Your task to perform on an android device: Show me popular videos on Youtube Image 0: 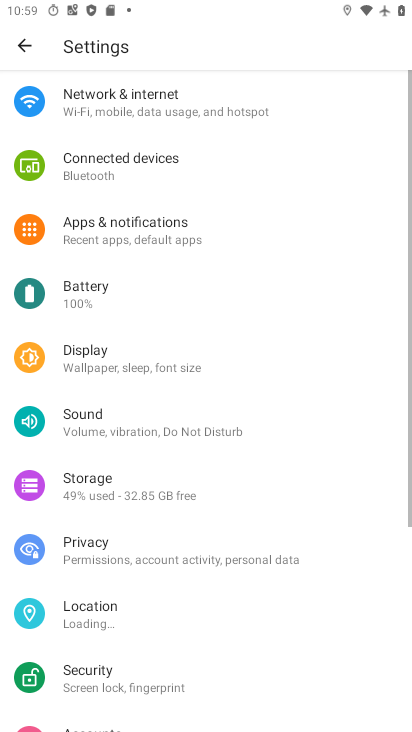
Step 0: press home button
Your task to perform on an android device: Show me popular videos on Youtube Image 1: 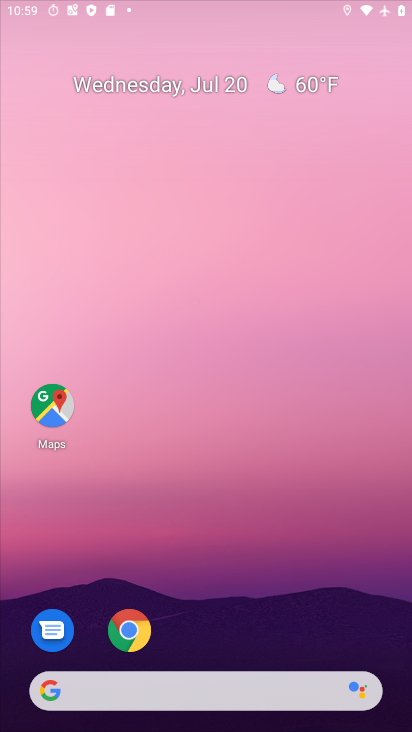
Step 1: drag from (202, 631) to (255, 75)
Your task to perform on an android device: Show me popular videos on Youtube Image 2: 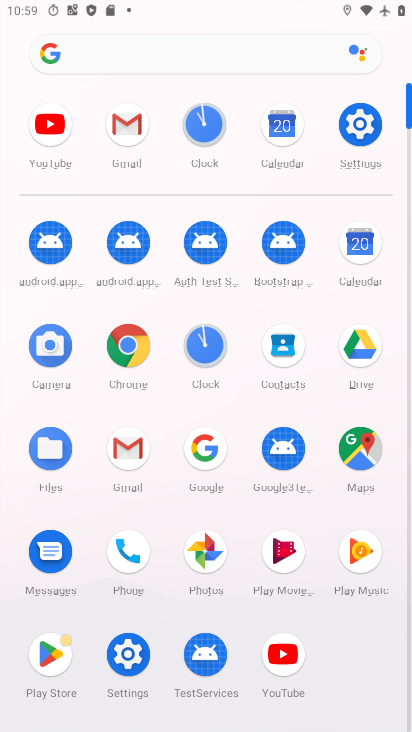
Step 2: click (276, 660)
Your task to perform on an android device: Show me popular videos on Youtube Image 3: 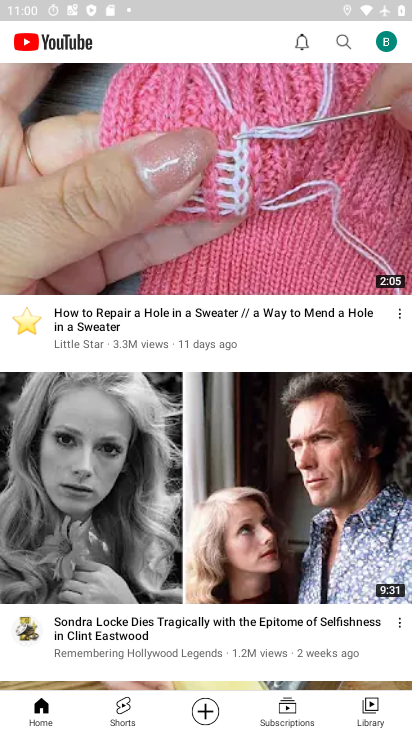
Step 3: click (344, 45)
Your task to perform on an android device: Show me popular videos on Youtube Image 4: 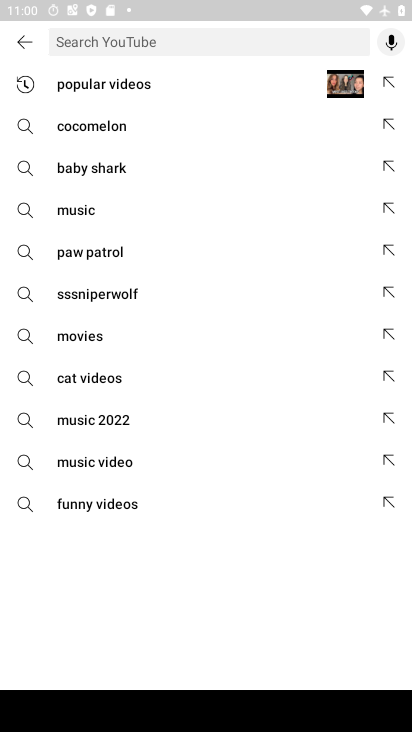
Step 4: click (111, 88)
Your task to perform on an android device: Show me popular videos on Youtube Image 5: 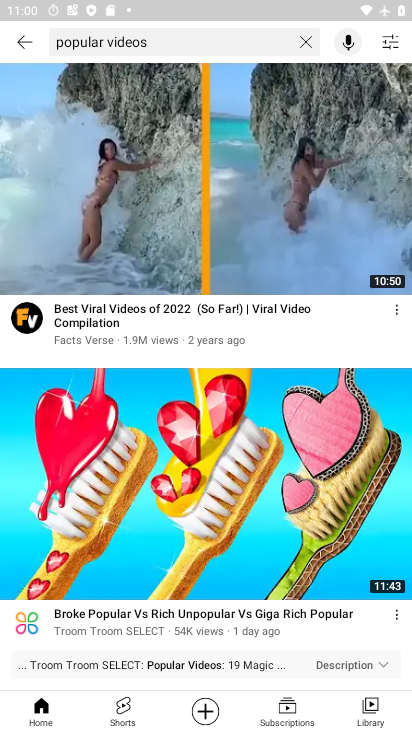
Step 5: task complete